Your task to perform on an android device: Open Android settings Image 0: 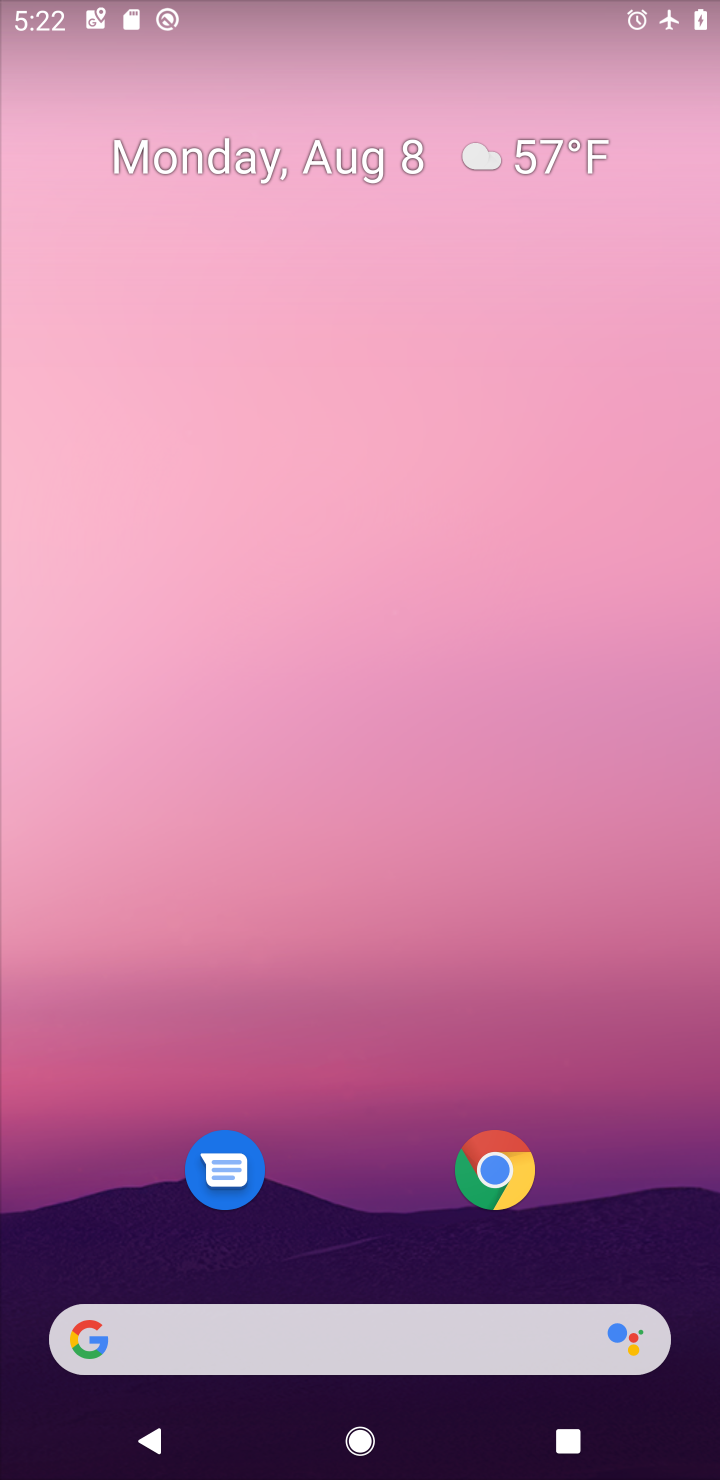
Step 0: drag from (347, 1105) to (251, 396)
Your task to perform on an android device: Open Android settings Image 1: 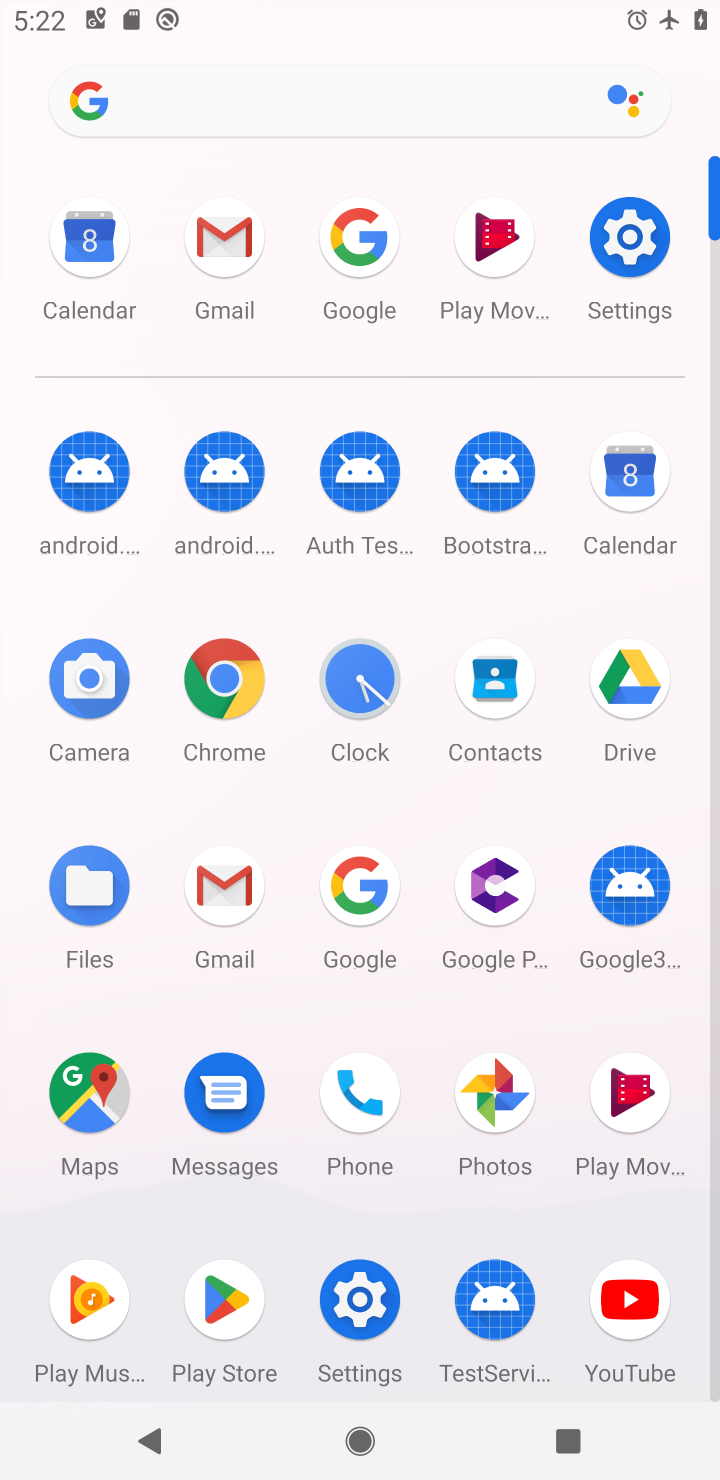
Step 1: click (617, 238)
Your task to perform on an android device: Open Android settings Image 2: 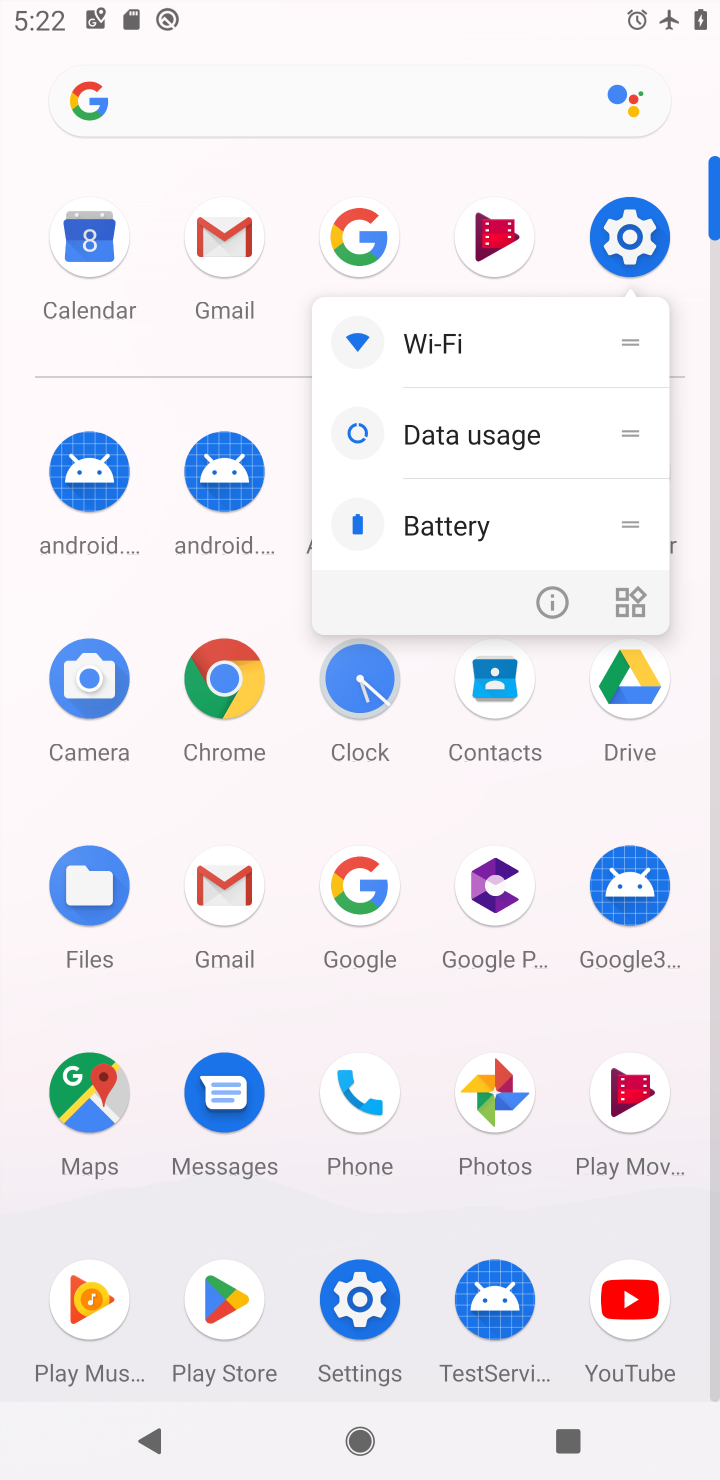
Step 2: click (615, 236)
Your task to perform on an android device: Open Android settings Image 3: 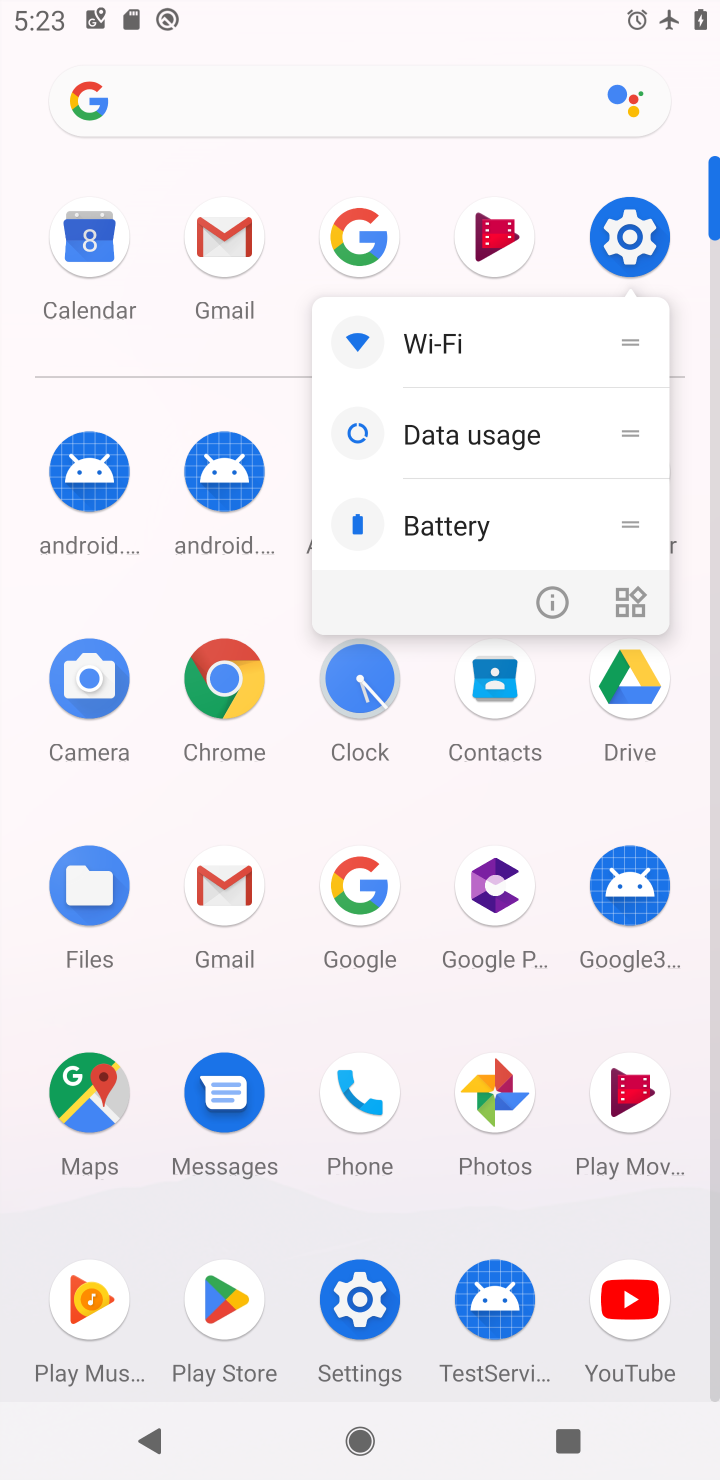
Step 3: click (615, 236)
Your task to perform on an android device: Open Android settings Image 4: 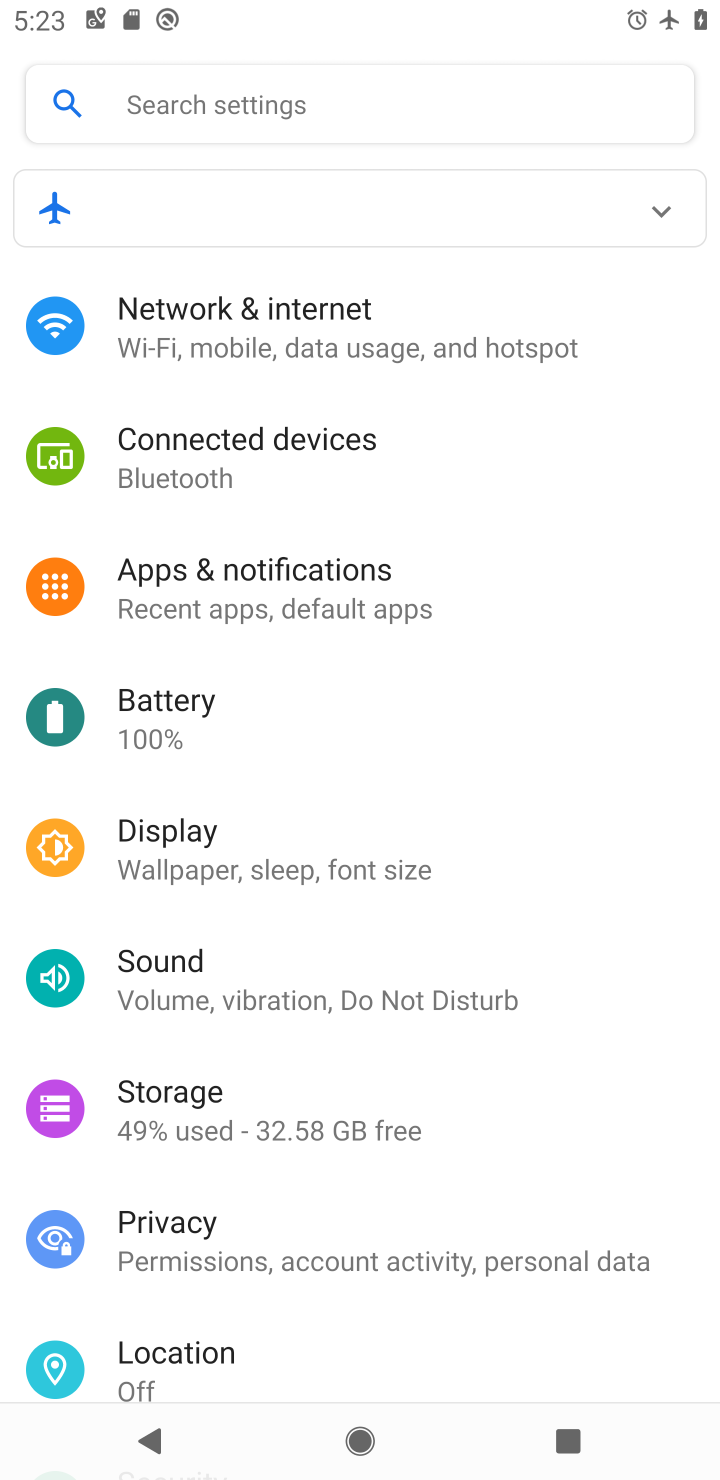
Step 4: task complete